Your task to perform on an android device: Open maps Image 0: 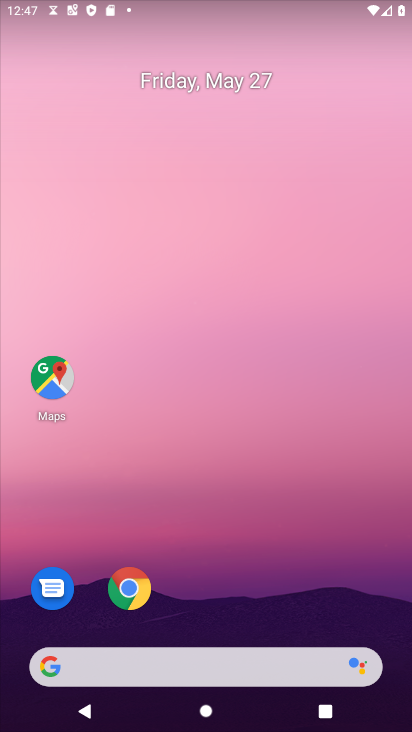
Step 0: click (50, 373)
Your task to perform on an android device: Open maps Image 1: 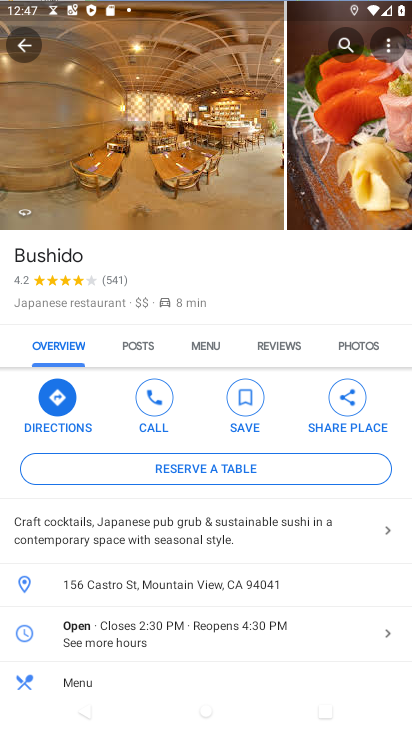
Step 1: press home button
Your task to perform on an android device: Open maps Image 2: 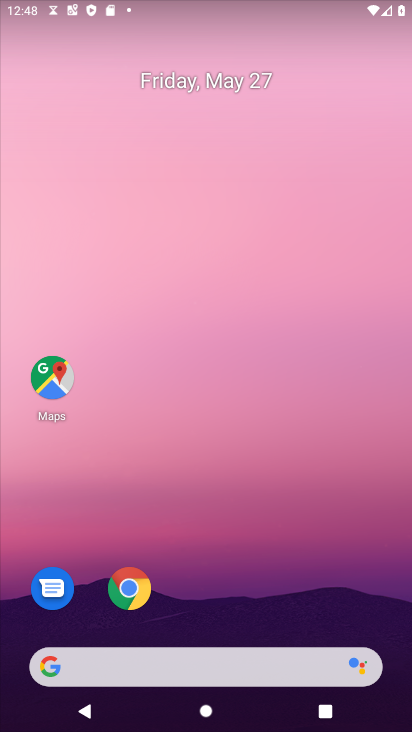
Step 2: click (50, 373)
Your task to perform on an android device: Open maps Image 3: 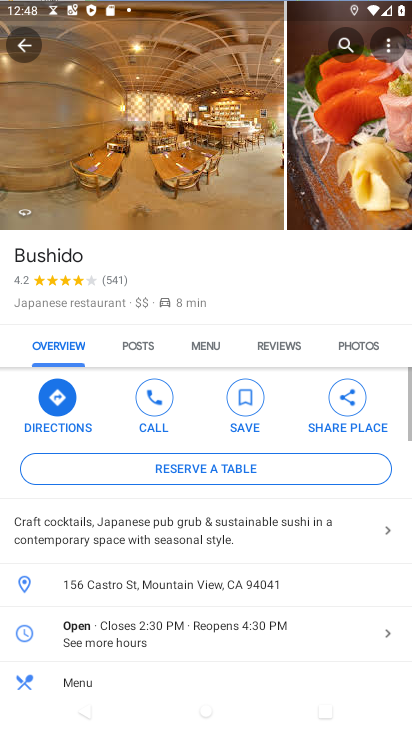
Step 3: click (28, 49)
Your task to perform on an android device: Open maps Image 4: 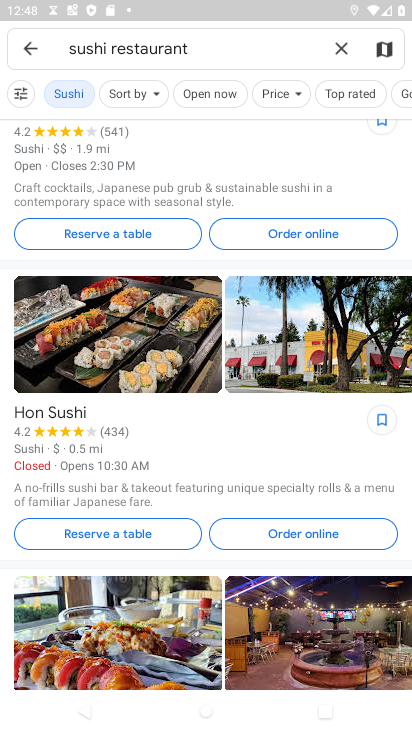
Step 4: click (29, 48)
Your task to perform on an android device: Open maps Image 5: 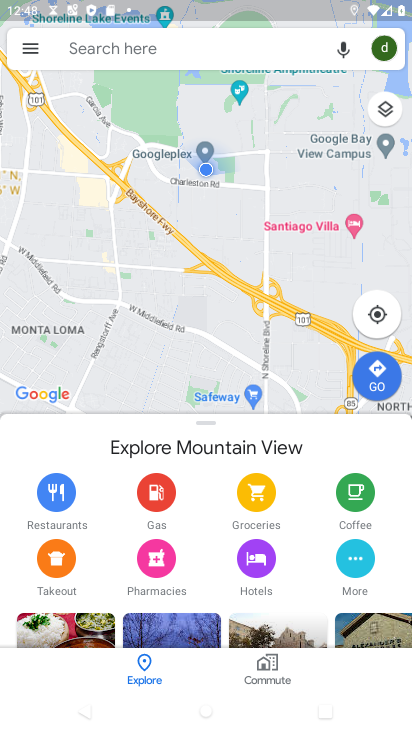
Step 5: task complete